Your task to perform on an android device: visit the assistant section in the google photos Image 0: 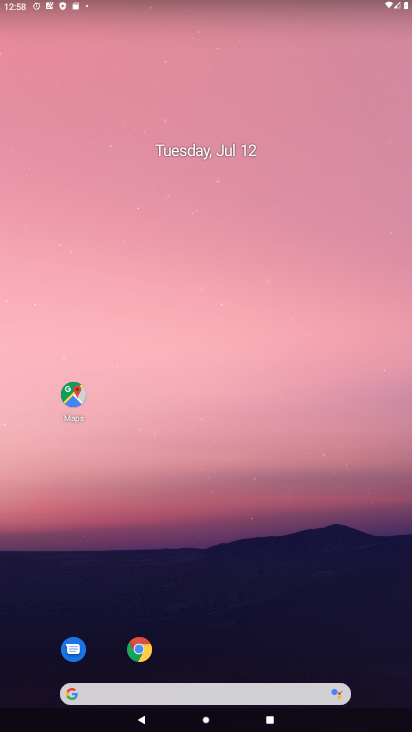
Step 0: drag from (373, 666) to (173, 68)
Your task to perform on an android device: visit the assistant section in the google photos Image 1: 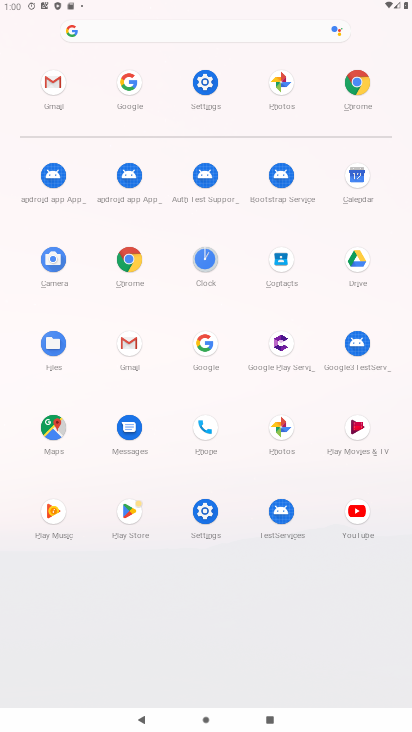
Step 1: click (275, 434)
Your task to perform on an android device: visit the assistant section in the google photos Image 2: 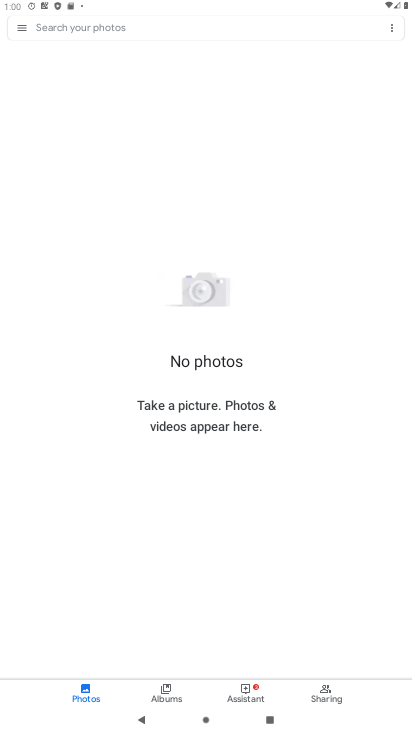
Step 2: click (232, 685)
Your task to perform on an android device: visit the assistant section in the google photos Image 3: 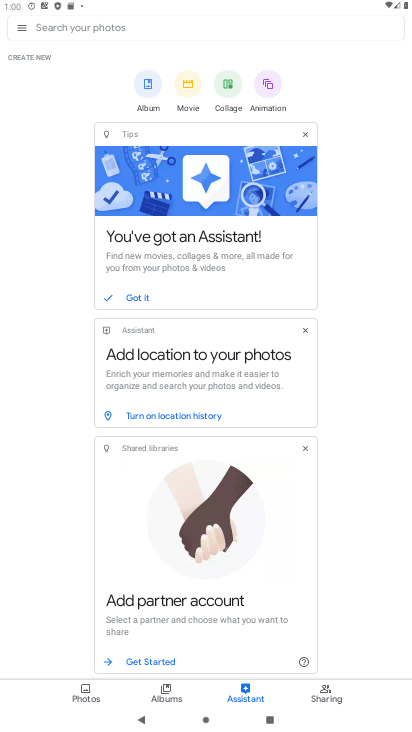
Step 3: task complete